Your task to perform on an android device: turn off location history Image 0: 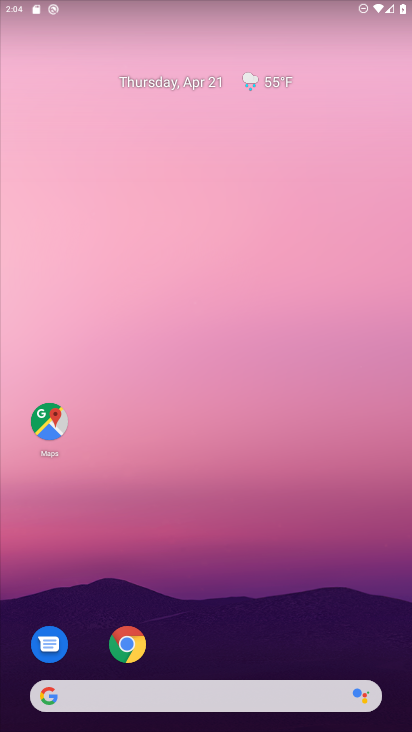
Step 0: drag from (226, 624) to (191, 164)
Your task to perform on an android device: turn off location history Image 1: 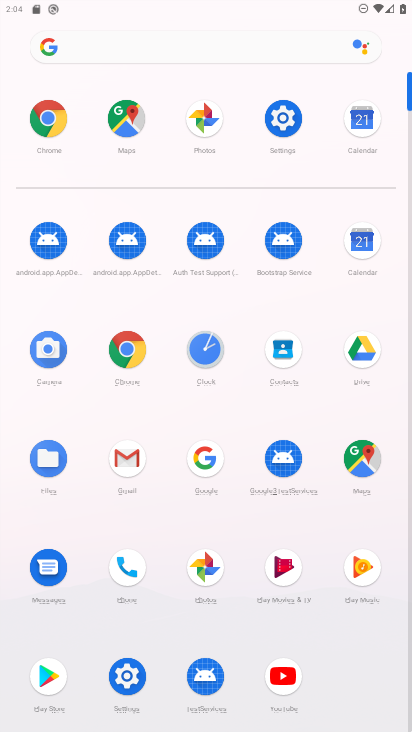
Step 1: click (124, 125)
Your task to perform on an android device: turn off location history Image 2: 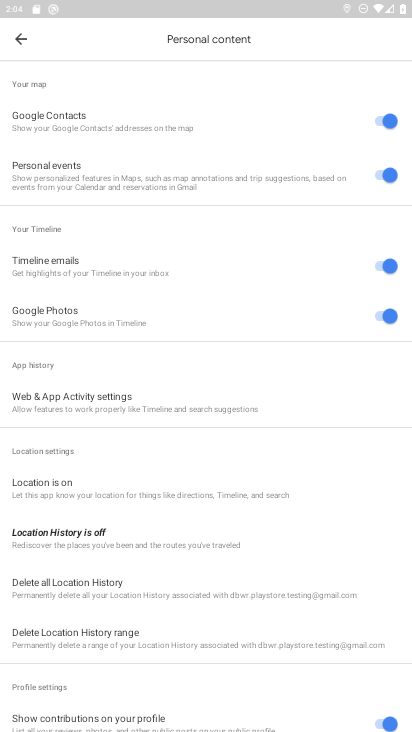
Step 2: click (121, 546)
Your task to perform on an android device: turn off location history Image 3: 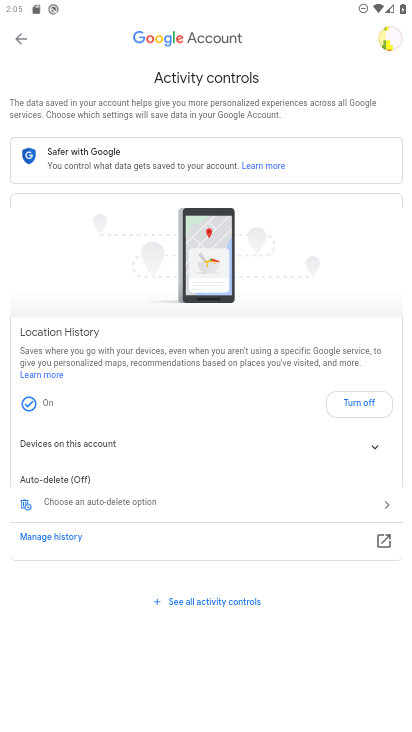
Step 3: click (359, 405)
Your task to perform on an android device: turn off location history Image 4: 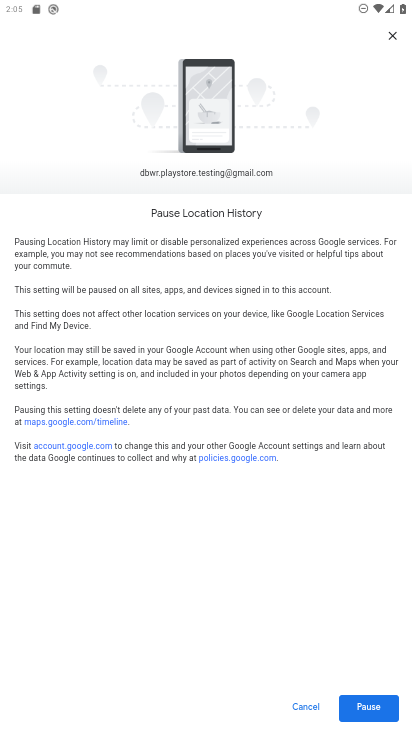
Step 4: click (375, 706)
Your task to perform on an android device: turn off location history Image 5: 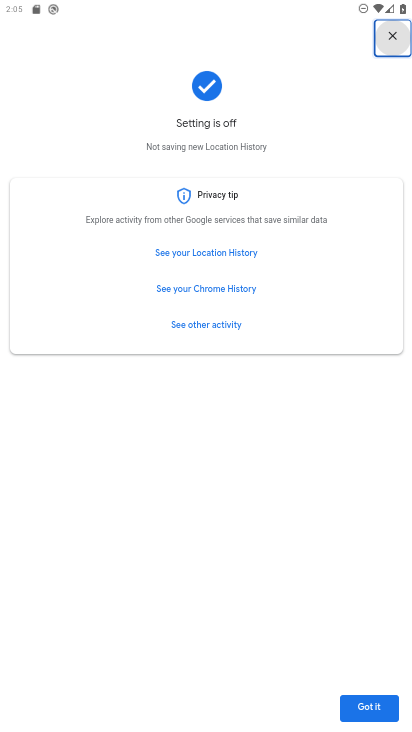
Step 5: click (375, 706)
Your task to perform on an android device: turn off location history Image 6: 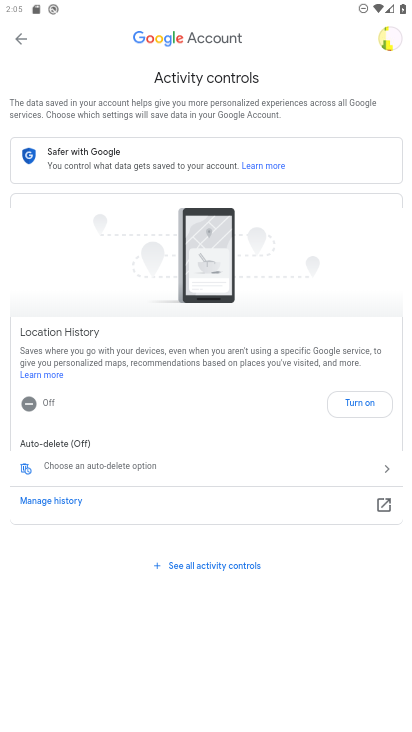
Step 6: task complete